Your task to perform on an android device: Go to battery settings Image 0: 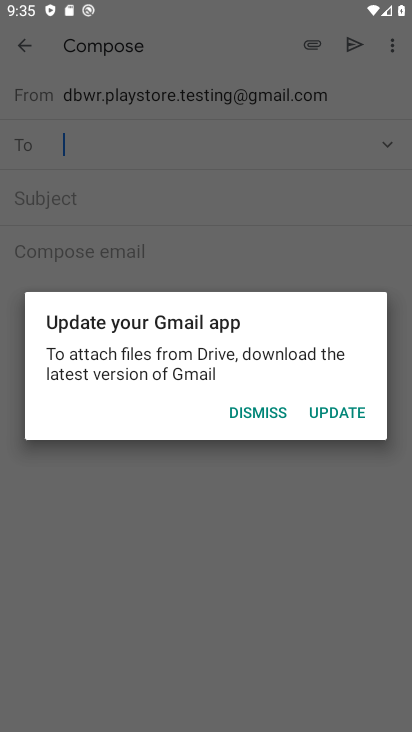
Step 0: press home button
Your task to perform on an android device: Go to battery settings Image 1: 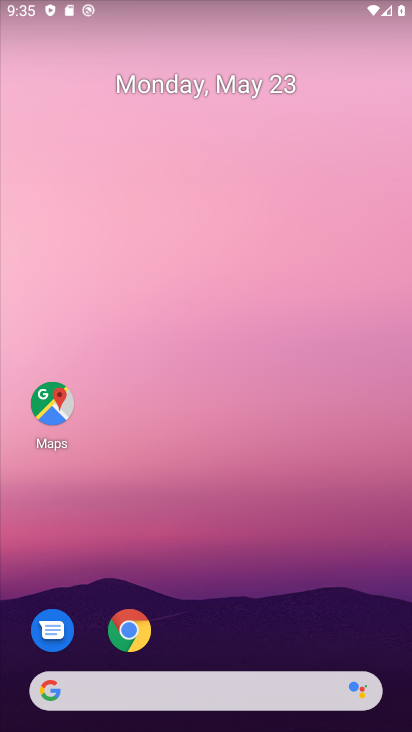
Step 1: drag from (224, 695) to (239, 193)
Your task to perform on an android device: Go to battery settings Image 2: 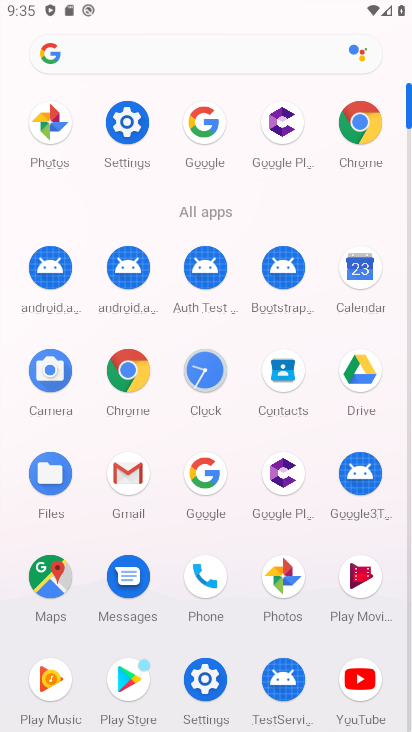
Step 2: click (132, 118)
Your task to perform on an android device: Go to battery settings Image 3: 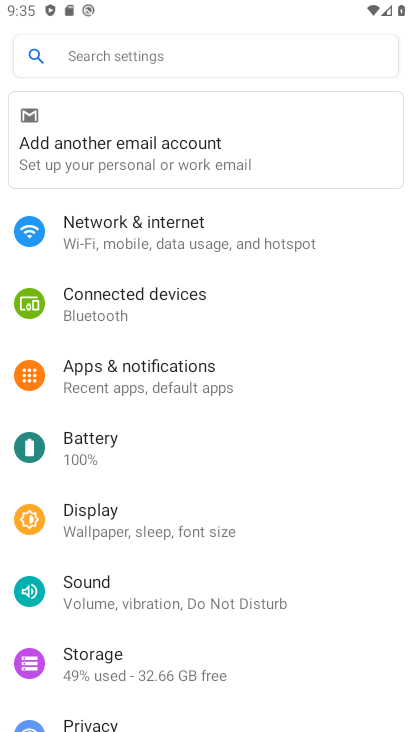
Step 3: click (111, 461)
Your task to perform on an android device: Go to battery settings Image 4: 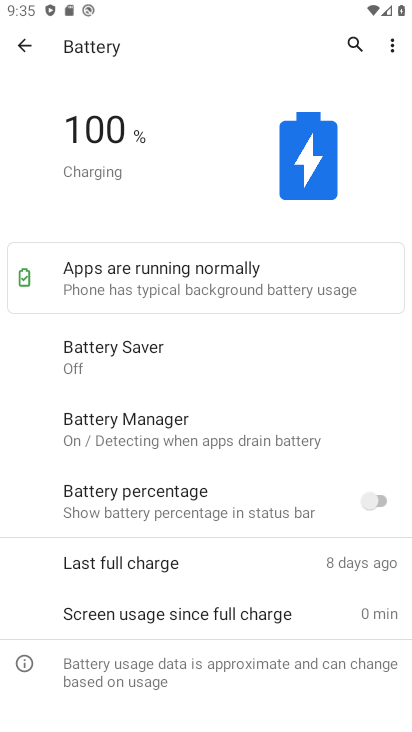
Step 4: task complete